Your task to perform on an android device: turn on sleep mode Image 0: 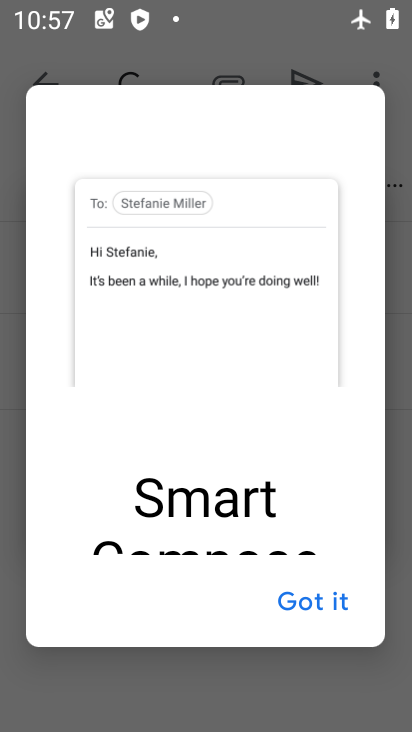
Step 0: press home button
Your task to perform on an android device: turn on sleep mode Image 1: 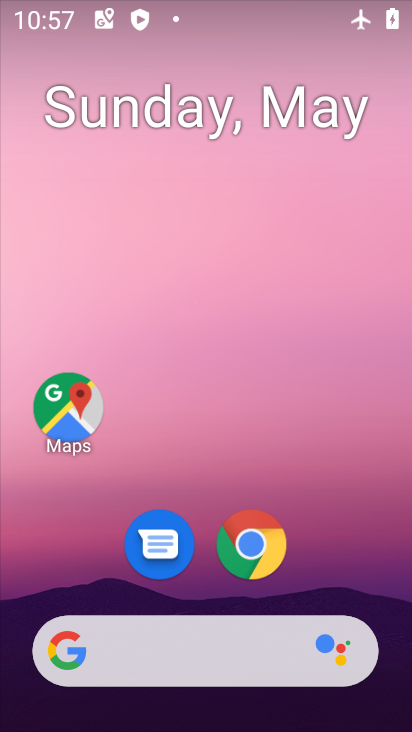
Step 1: drag from (336, 577) to (340, 268)
Your task to perform on an android device: turn on sleep mode Image 2: 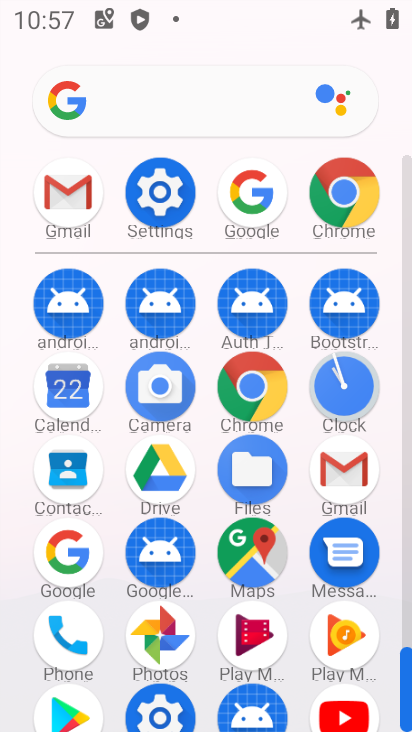
Step 2: click (163, 190)
Your task to perform on an android device: turn on sleep mode Image 3: 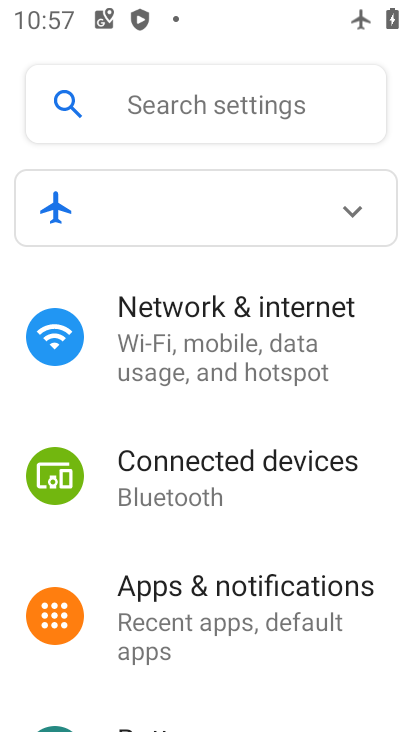
Step 3: task complete